Your task to perform on an android device: open the mobile data screen to see how much data has been used Image 0: 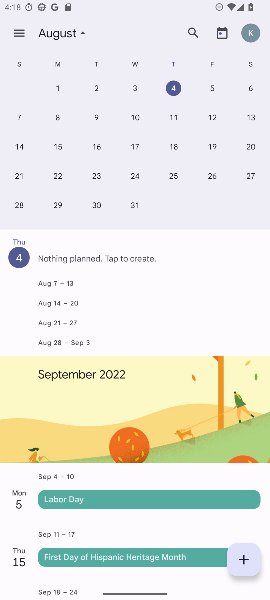
Step 0: drag from (134, 505) to (158, 339)
Your task to perform on an android device: open the mobile data screen to see how much data has been used Image 1: 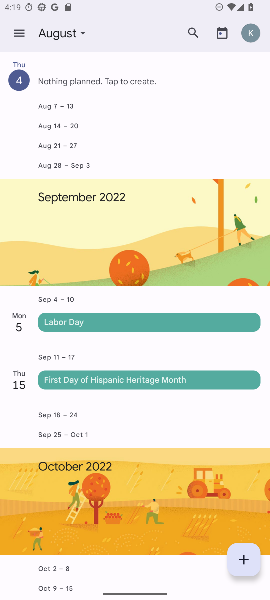
Step 1: press home button
Your task to perform on an android device: open the mobile data screen to see how much data has been used Image 2: 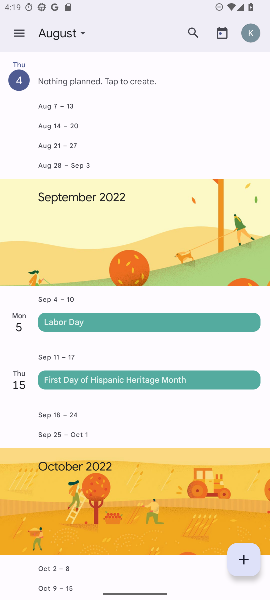
Step 2: press home button
Your task to perform on an android device: open the mobile data screen to see how much data has been used Image 3: 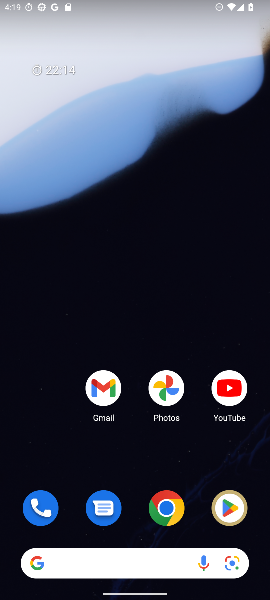
Step 3: drag from (137, 542) to (146, 166)
Your task to perform on an android device: open the mobile data screen to see how much data has been used Image 4: 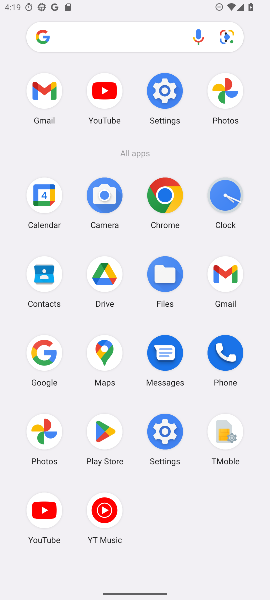
Step 4: click (165, 90)
Your task to perform on an android device: open the mobile data screen to see how much data has been used Image 5: 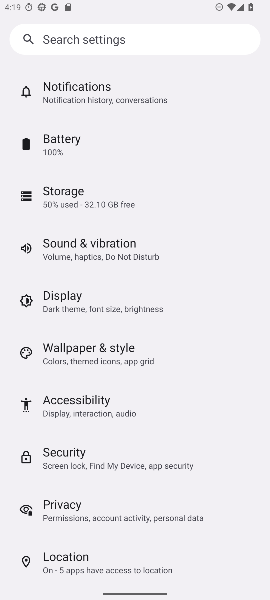
Step 5: drag from (110, 149) to (164, 545)
Your task to perform on an android device: open the mobile data screen to see how much data has been used Image 6: 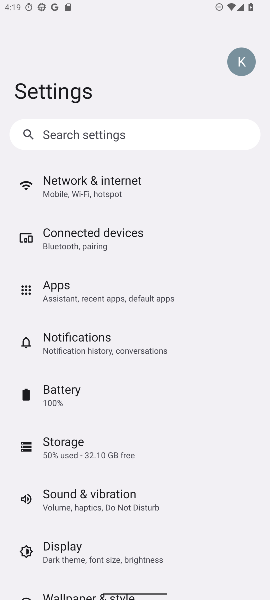
Step 6: click (110, 195)
Your task to perform on an android device: open the mobile data screen to see how much data has been used Image 7: 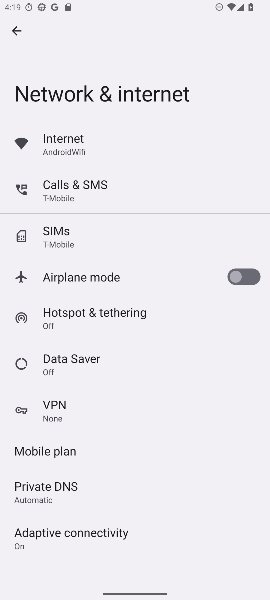
Step 7: click (108, 149)
Your task to perform on an android device: open the mobile data screen to see how much data has been used Image 8: 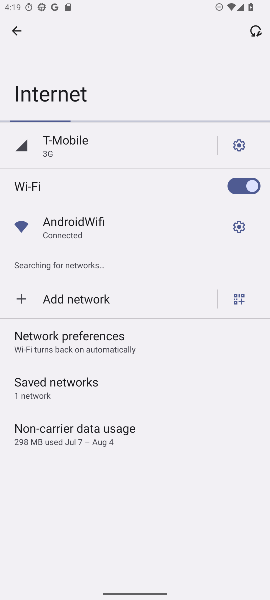
Step 8: click (6, 21)
Your task to perform on an android device: open the mobile data screen to see how much data has been used Image 9: 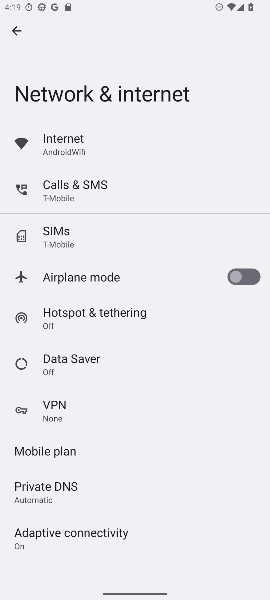
Step 9: click (103, 366)
Your task to perform on an android device: open the mobile data screen to see how much data has been used Image 10: 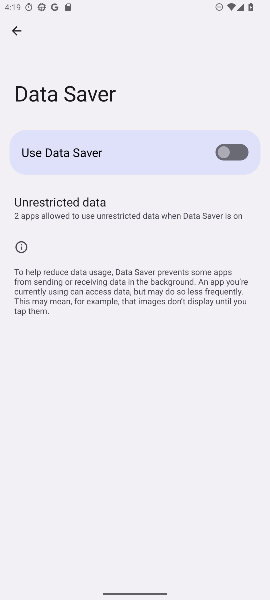
Step 10: click (10, 33)
Your task to perform on an android device: open the mobile data screen to see how much data has been used Image 11: 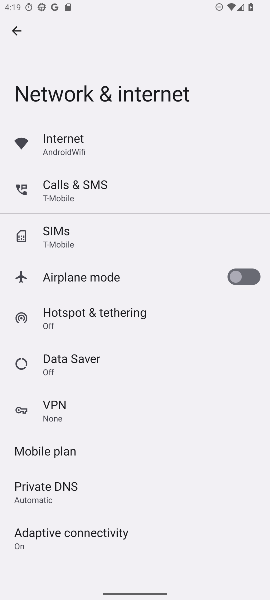
Step 11: click (96, 247)
Your task to perform on an android device: open the mobile data screen to see how much data has been used Image 12: 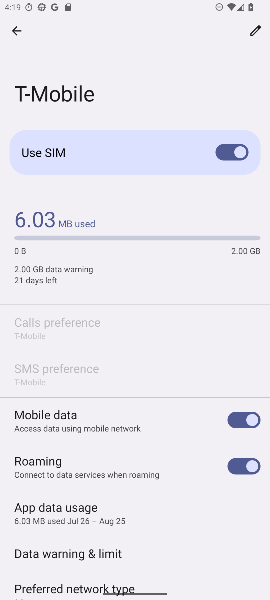
Step 12: task complete